Your task to perform on an android device: toggle priority inbox in the gmail app Image 0: 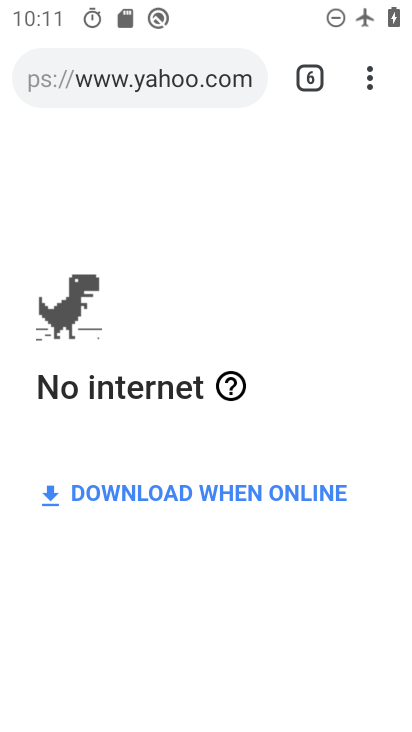
Step 0: press home button
Your task to perform on an android device: toggle priority inbox in the gmail app Image 1: 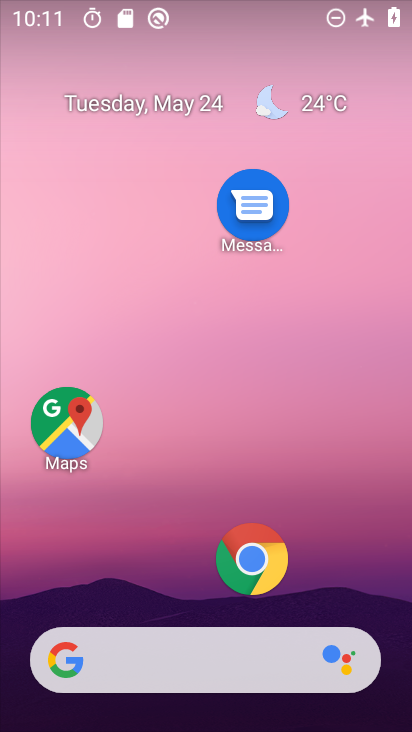
Step 1: drag from (179, 564) to (182, 142)
Your task to perform on an android device: toggle priority inbox in the gmail app Image 2: 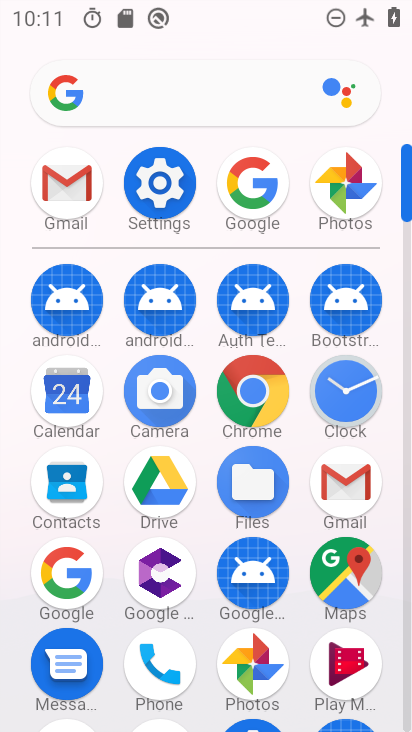
Step 2: click (346, 468)
Your task to perform on an android device: toggle priority inbox in the gmail app Image 3: 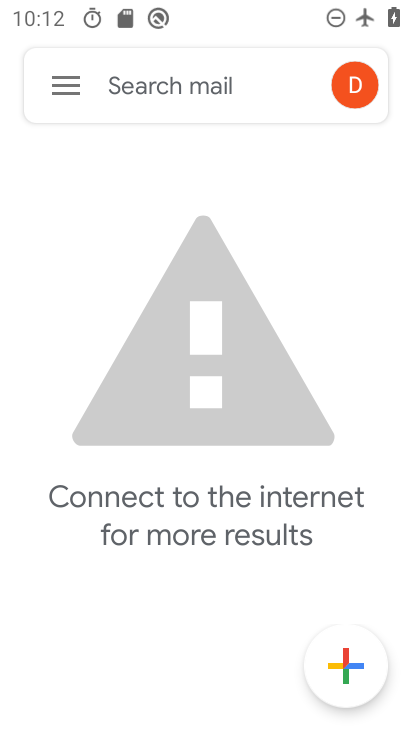
Step 3: click (63, 82)
Your task to perform on an android device: toggle priority inbox in the gmail app Image 4: 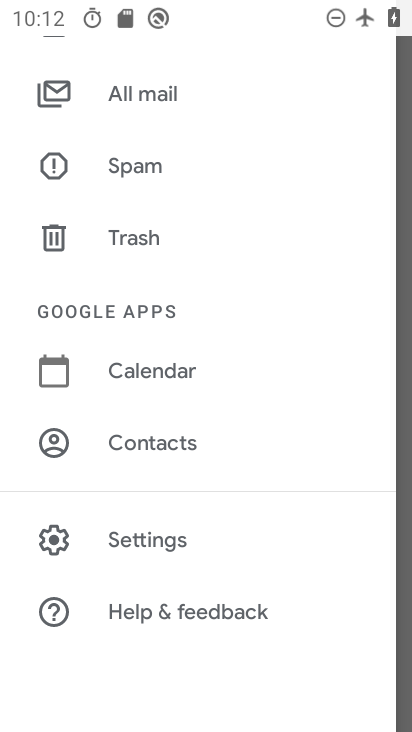
Step 4: click (190, 560)
Your task to perform on an android device: toggle priority inbox in the gmail app Image 5: 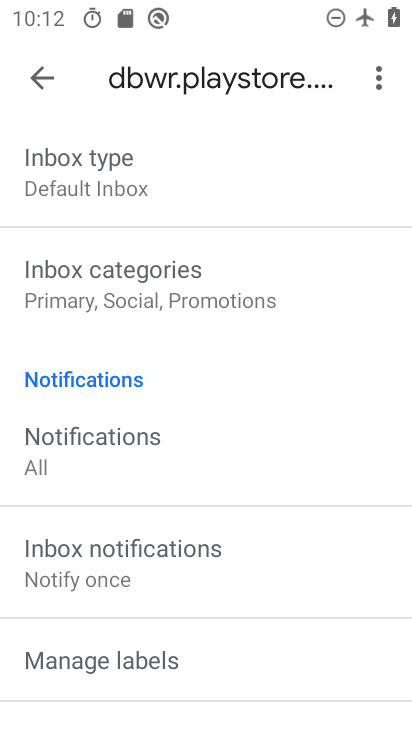
Step 5: drag from (165, 238) to (213, 551)
Your task to perform on an android device: toggle priority inbox in the gmail app Image 6: 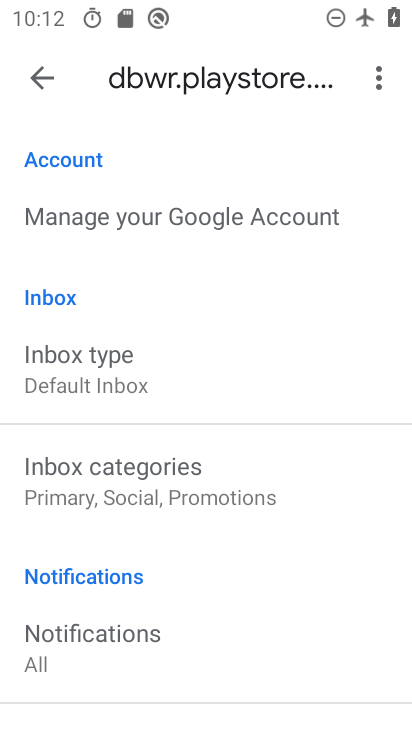
Step 6: drag from (166, 239) to (195, 513)
Your task to perform on an android device: toggle priority inbox in the gmail app Image 7: 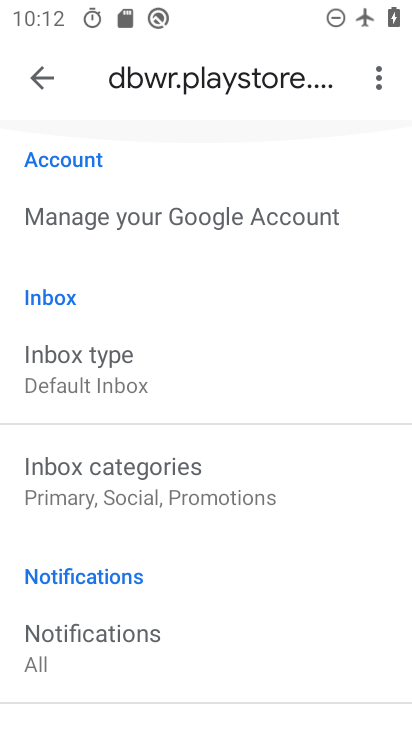
Step 7: drag from (191, 600) to (200, 282)
Your task to perform on an android device: toggle priority inbox in the gmail app Image 8: 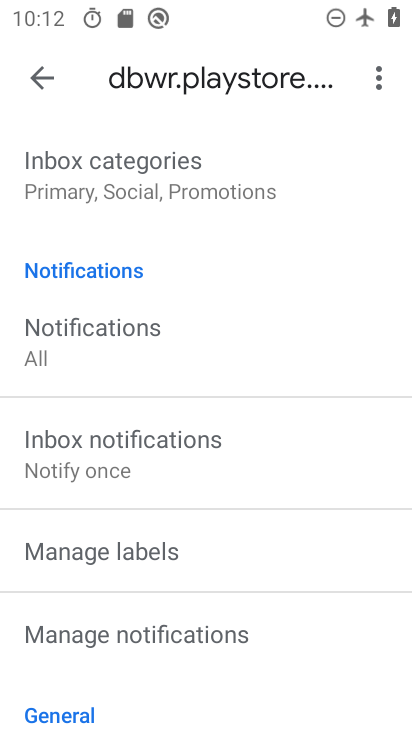
Step 8: drag from (207, 200) to (223, 463)
Your task to perform on an android device: toggle priority inbox in the gmail app Image 9: 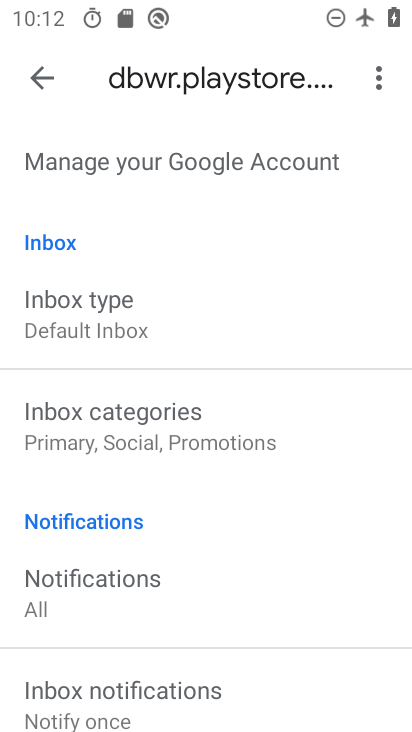
Step 9: click (152, 322)
Your task to perform on an android device: toggle priority inbox in the gmail app Image 10: 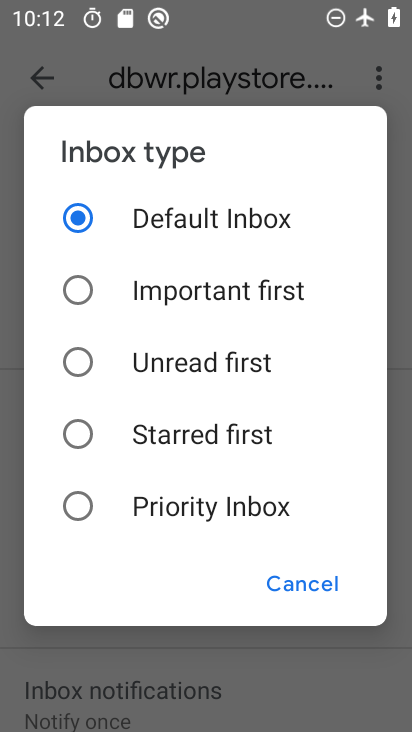
Step 10: click (199, 496)
Your task to perform on an android device: toggle priority inbox in the gmail app Image 11: 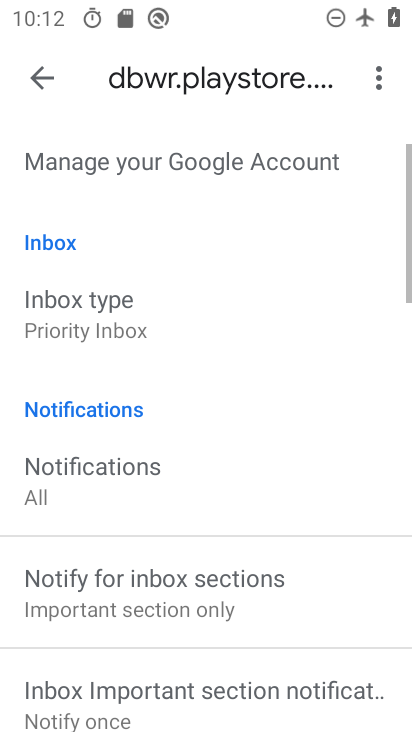
Step 11: task complete